Your task to perform on an android device: Go to Google Image 0: 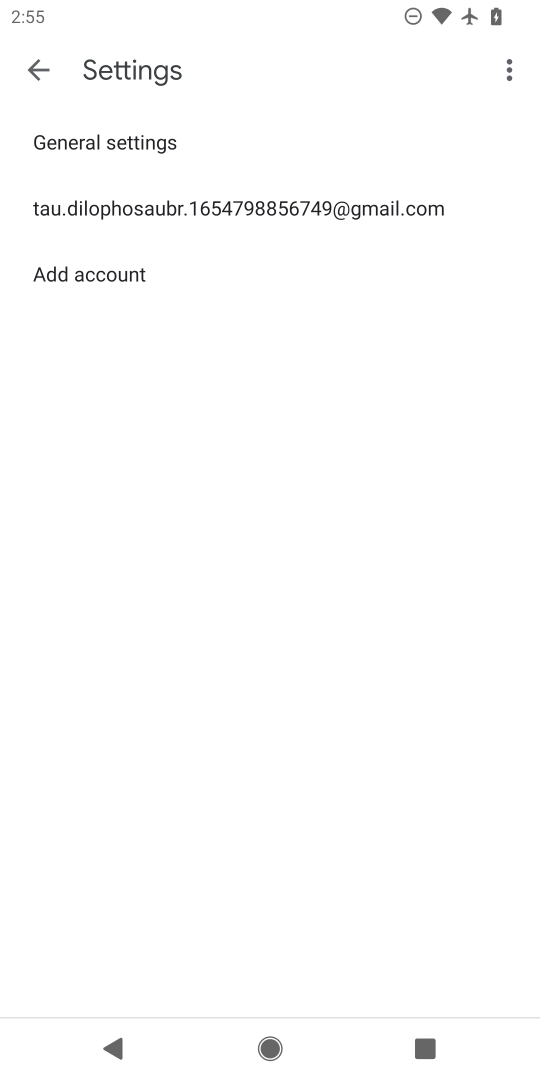
Step 0: press home button
Your task to perform on an android device: Go to Google Image 1: 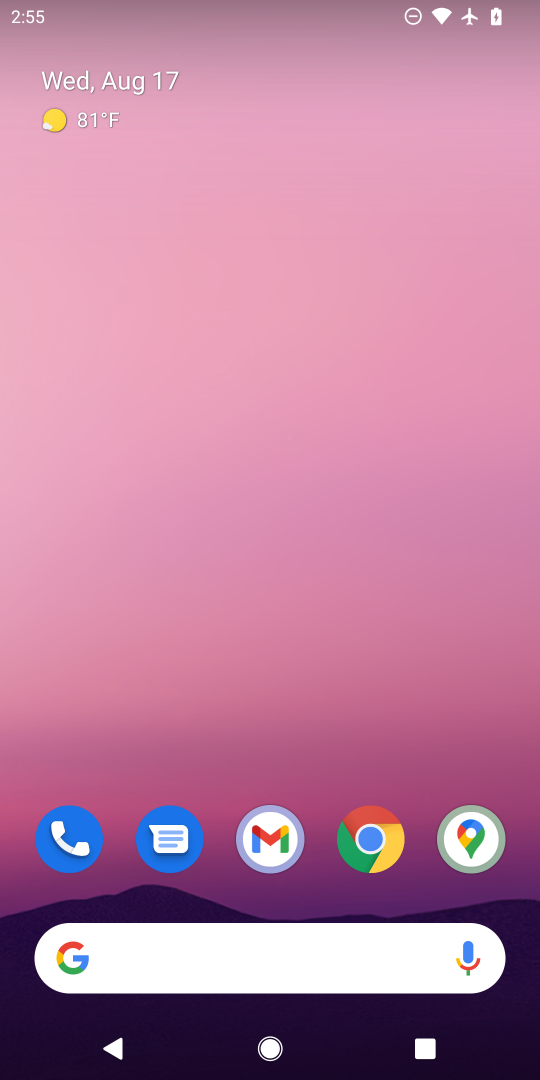
Step 1: drag from (318, 887) to (342, 79)
Your task to perform on an android device: Go to Google Image 2: 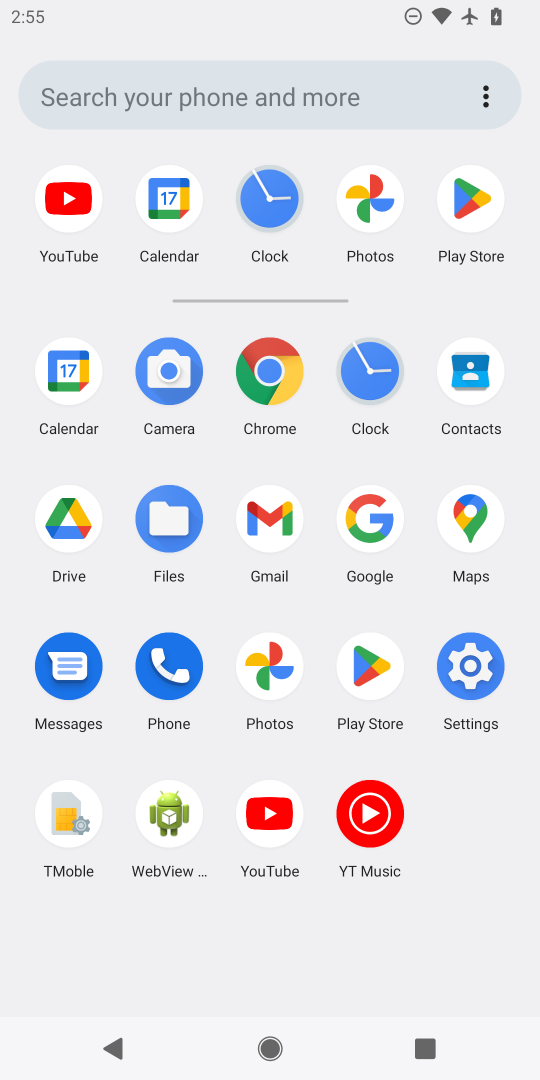
Step 2: click (368, 515)
Your task to perform on an android device: Go to Google Image 3: 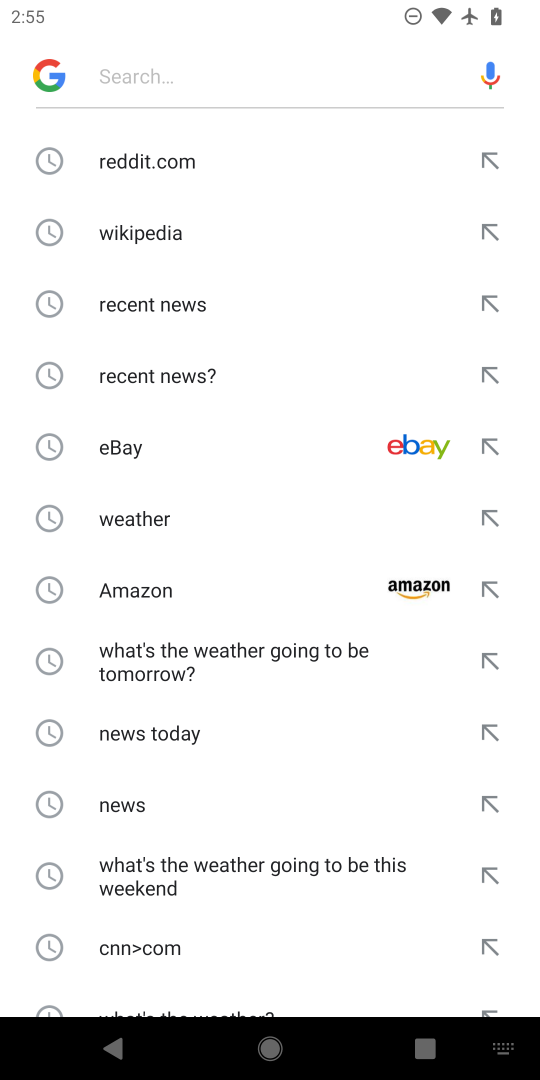
Step 3: task complete